Your task to perform on an android device: Check the news Image 0: 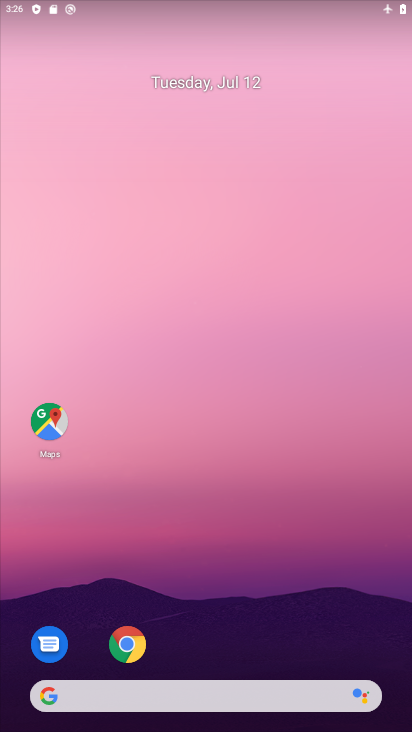
Step 0: drag from (306, 646) to (278, 133)
Your task to perform on an android device: Check the news Image 1: 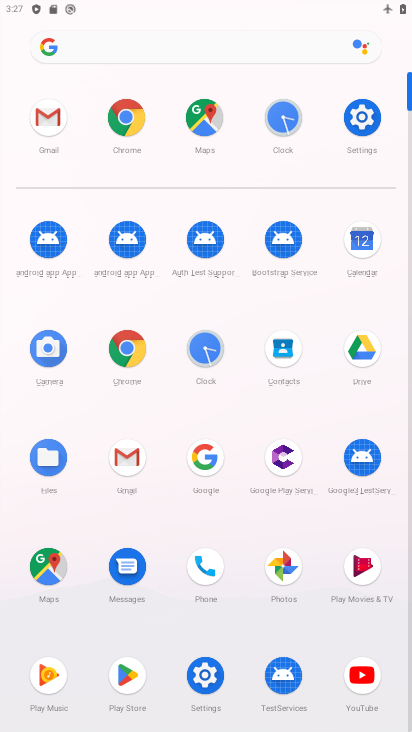
Step 1: click (128, 349)
Your task to perform on an android device: Check the news Image 2: 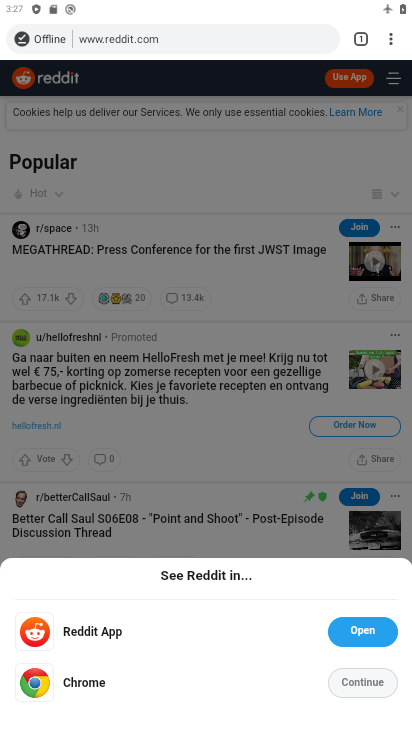
Step 2: click (217, 42)
Your task to perform on an android device: Check the news Image 3: 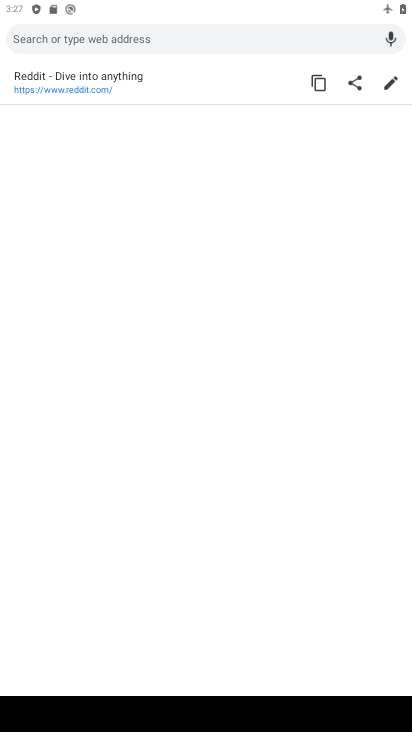
Step 3: type "news"
Your task to perform on an android device: Check the news Image 4: 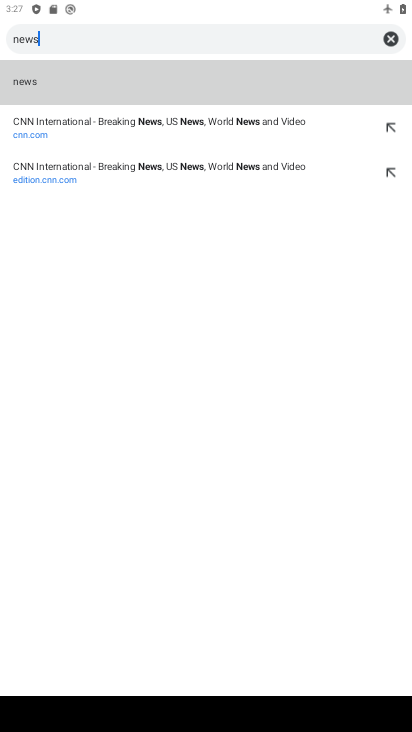
Step 4: click (24, 81)
Your task to perform on an android device: Check the news Image 5: 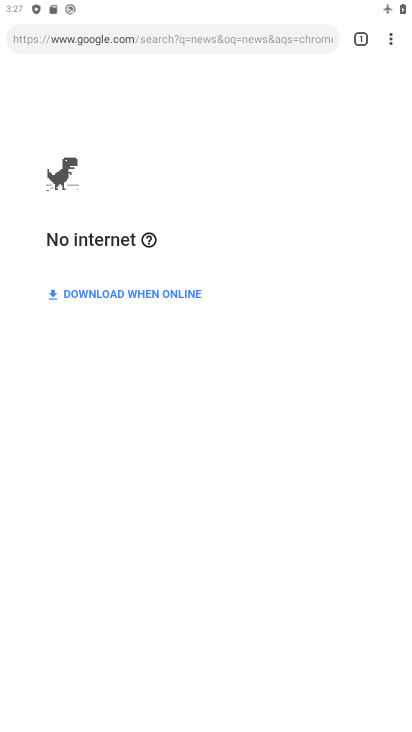
Step 5: task complete